Your task to perform on an android device: Search for pizza restaurants on Maps Image 0: 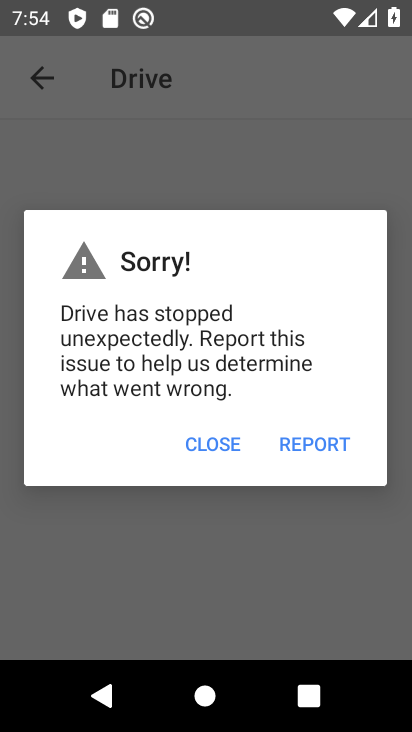
Step 0: press home button
Your task to perform on an android device: Search for pizza restaurants on Maps Image 1: 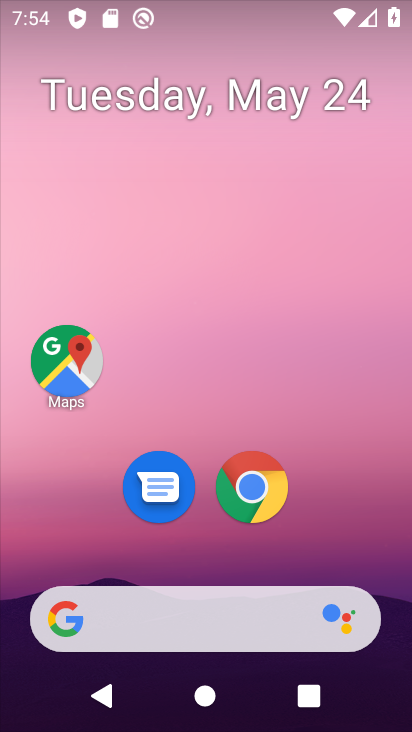
Step 1: click (63, 362)
Your task to perform on an android device: Search for pizza restaurants on Maps Image 2: 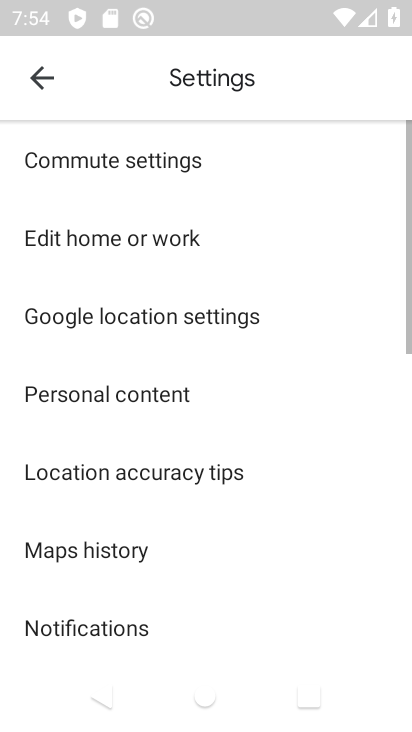
Step 2: click (30, 85)
Your task to perform on an android device: Search for pizza restaurants on Maps Image 3: 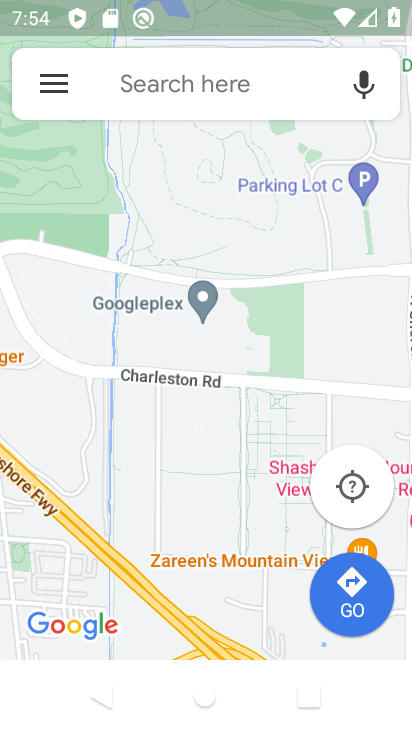
Step 3: click (191, 87)
Your task to perform on an android device: Search for pizza restaurants on Maps Image 4: 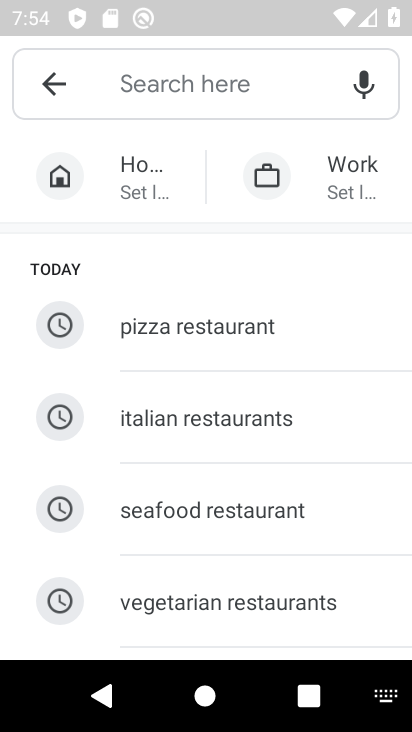
Step 4: click (227, 330)
Your task to perform on an android device: Search for pizza restaurants on Maps Image 5: 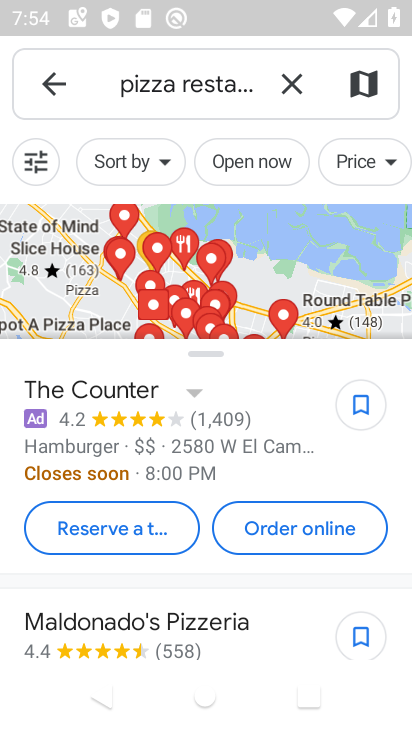
Step 5: task complete